Your task to perform on an android device: Go to battery settings Image 0: 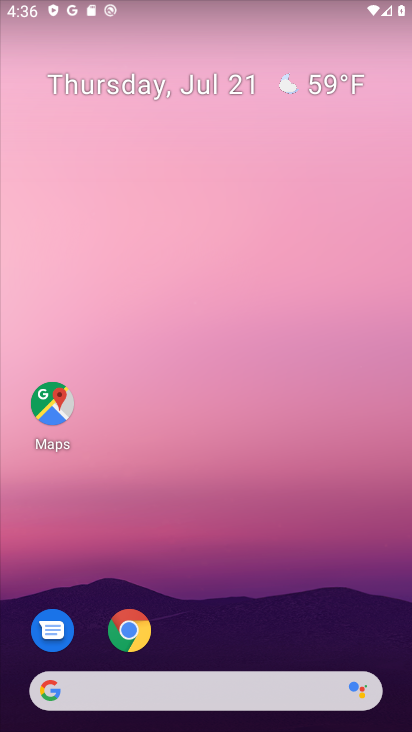
Step 0: drag from (248, 691) to (241, 92)
Your task to perform on an android device: Go to battery settings Image 1: 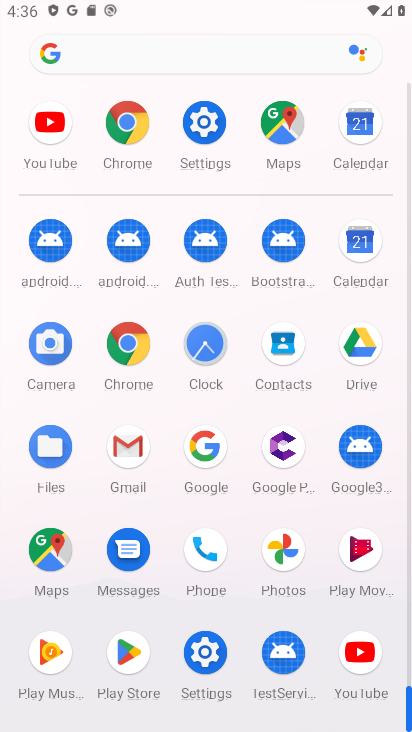
Step 1: click (197, 118)
Your task to perform on an android device: Go to battery settings Image 2: 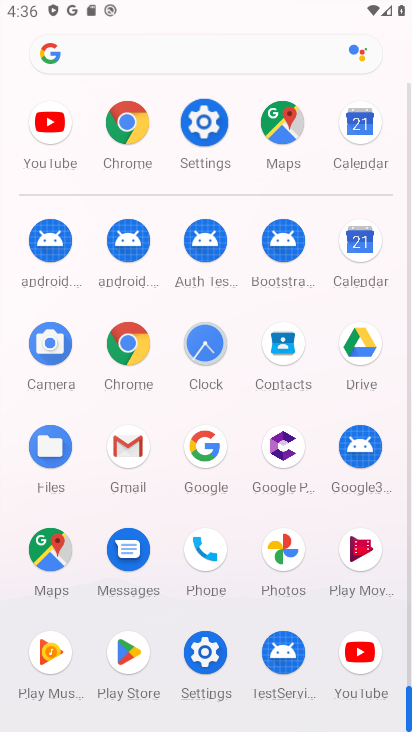
Step 2: click (196, 117)
Your task to perform on an android device: Go to battery settings Image 3: 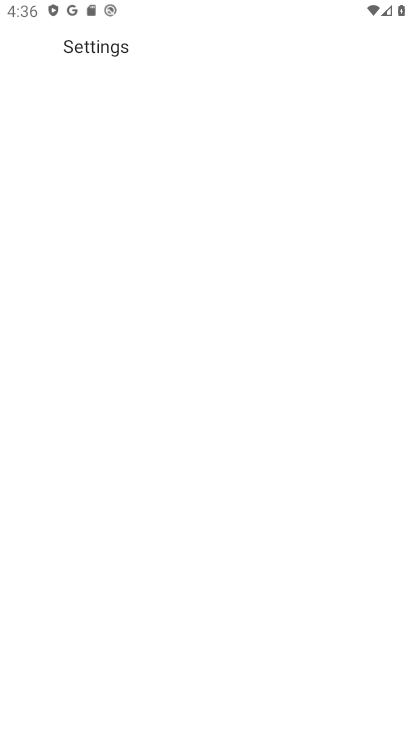
Step 3: click (196, 117)
Your task to perform on an android device: Go to battery settings Image 4: 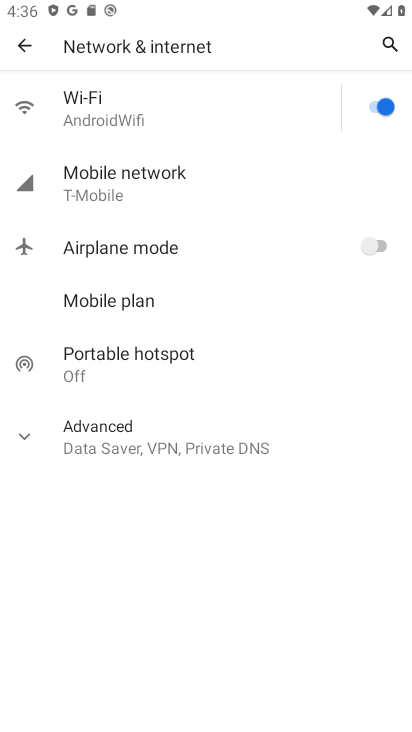
Step 4: click (36, 36)
Your task to perform on an android device: Go to battery settings Image 5: 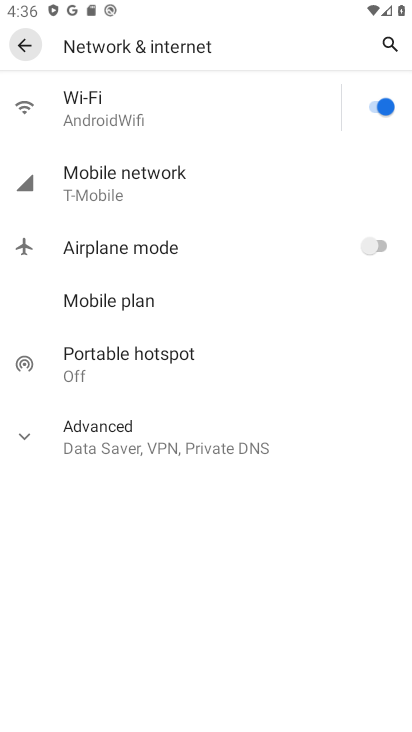
Step 5: click (34, 37)
Your task to perform on an android device: Go to battery settings Image 6: 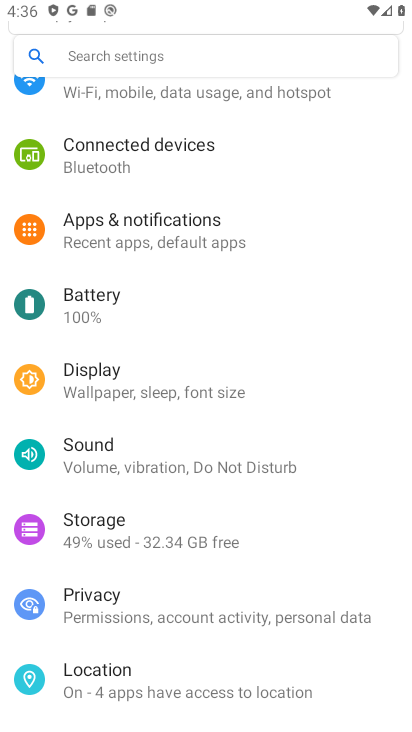
Step 6: click (91, 309)
Your task to perform on an android device: Go to battery settings Image 7: 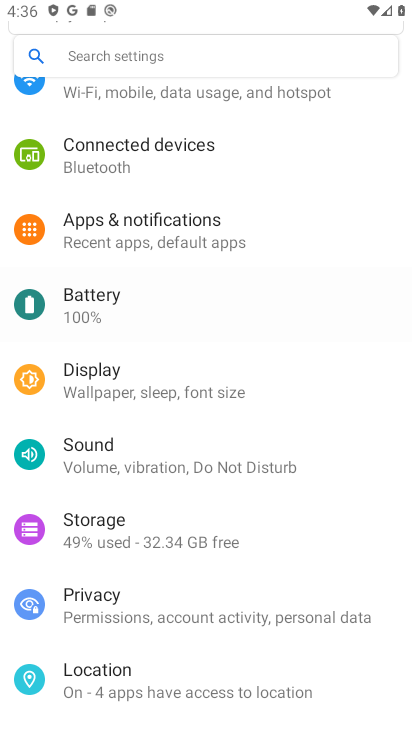
Step 7: click (91, 309)
Your task to perform on an android device: Go to battery settings Image 8: 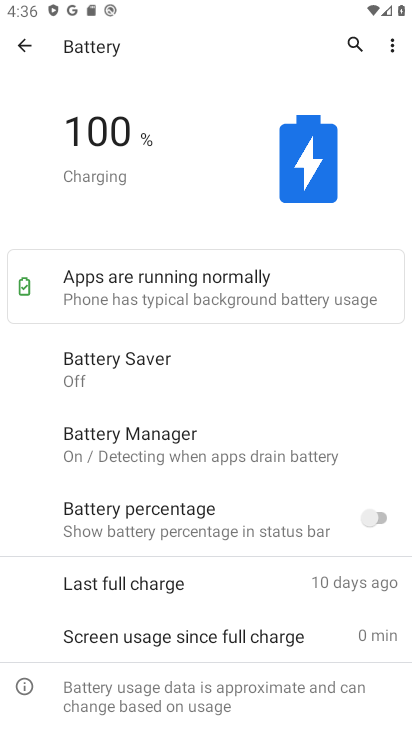
Step 8: task complete